Your task to perform on an android device: Open Google Maps Image 0: 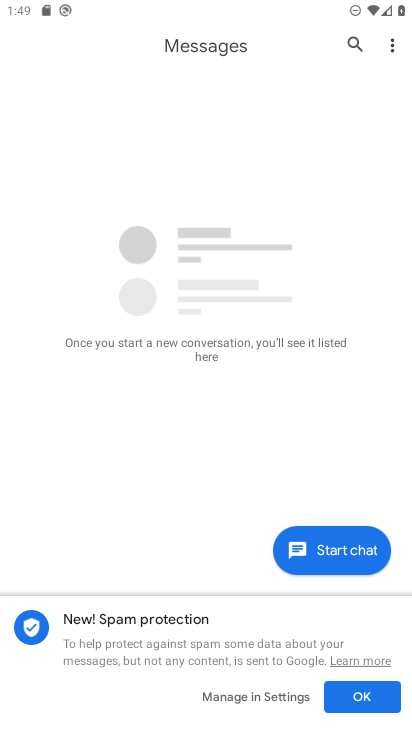
Step 0: press home button
Your task to perform on an android device: Open Google Maps Image 1: 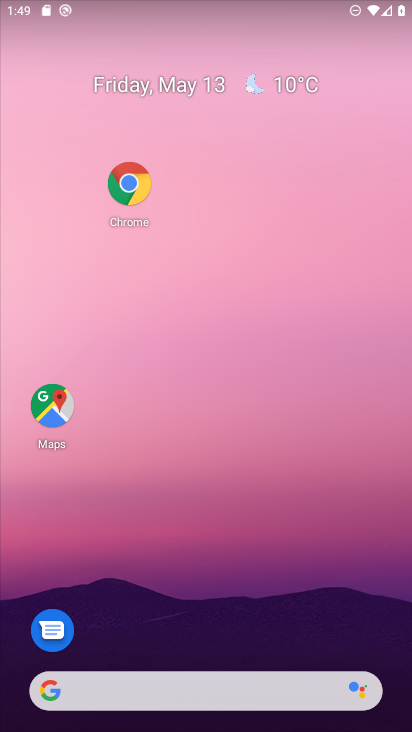
Step 1: click (41, 403)
Your task to perform on an android device: Open Google Maps Image 2: 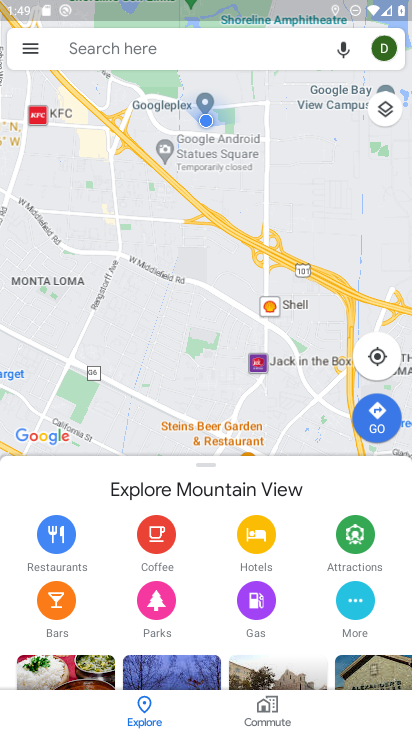
Step 2: task complete